Your task to perform on an android device: change the clock style Image 0: 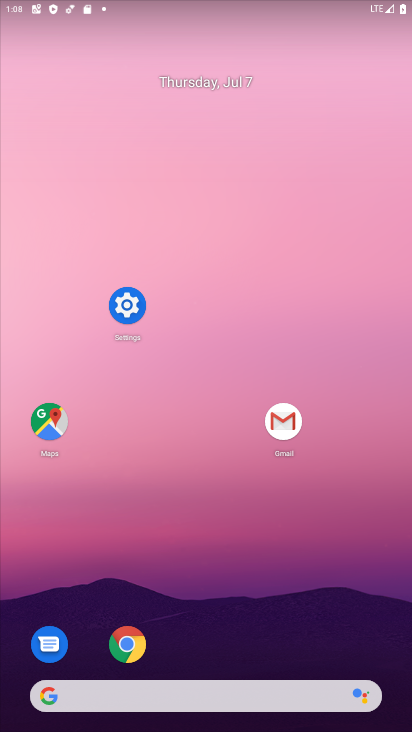
Step 0: drag from (385, 522) to (384, 153)
Your task to perform on an android device: change the clock style Image 1: 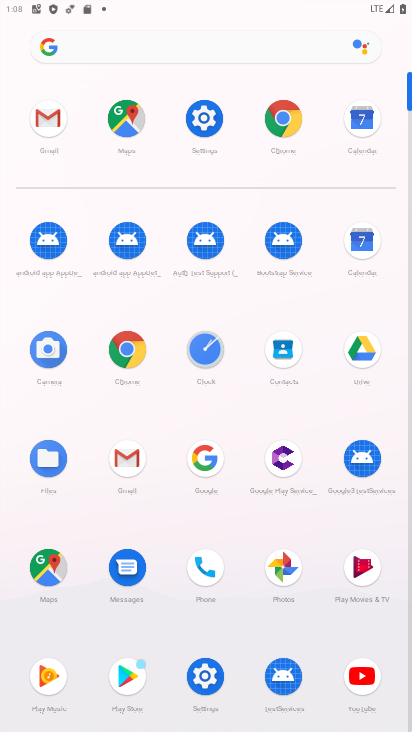
Step 1: click (212, 351)
Your task to perform on an android device: change the clock style Image 2: 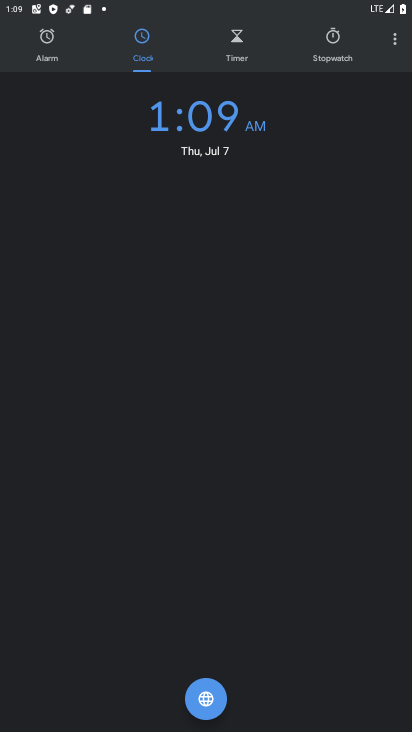
Step 2: click (394, 43)
Your task to perform on an android device: change the clock style Image 3: 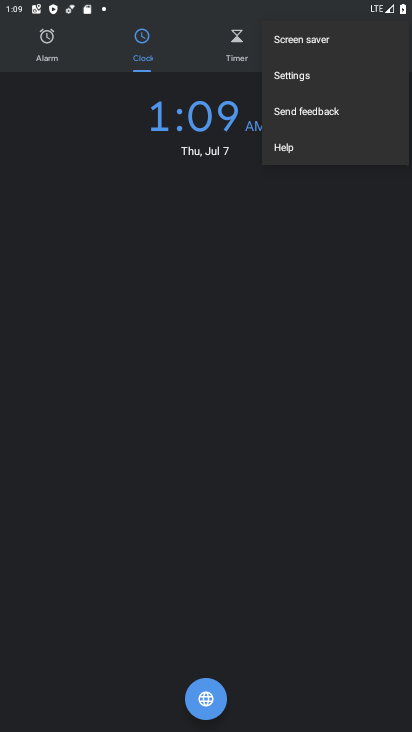
Step 3: click (290, 78)
Your task to perform on an android device: change the clock style Image 4: 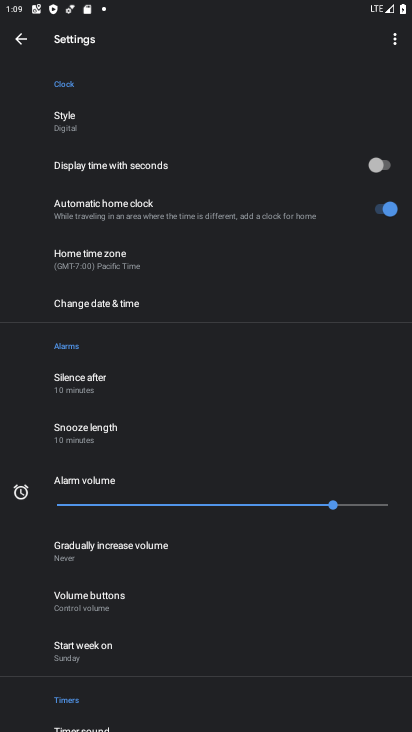
Step 4: drag from (237, 677) to (165, 302)
Your task to perform on an android device: change the clock style Image 5: 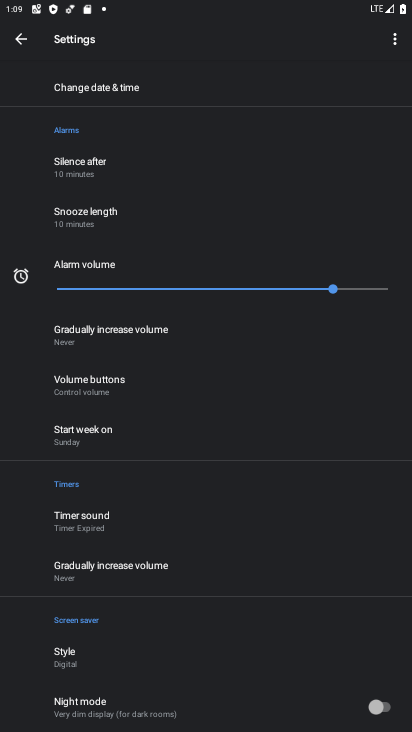
Step 5: drag from (235, 117) to (262, 630)
Your task to perform on an android device: change the clock style Image 6: 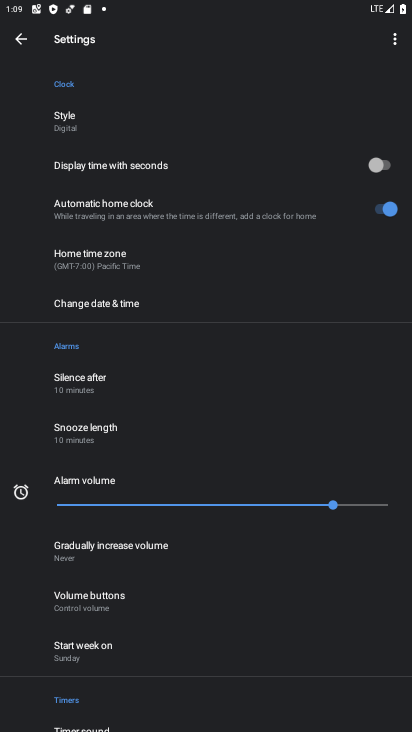
Step 6: click (67, 115)
Your task to perform on an android device: change the clock style Image 7: 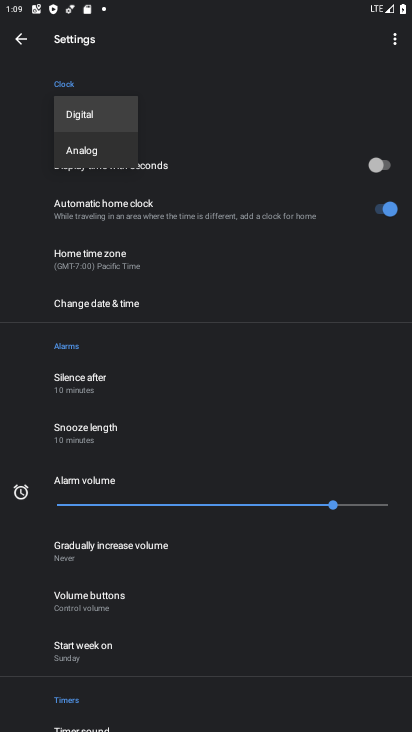
Step 7: click (78, 155)
Your task to perform on an android device: change the clock style Image 8: 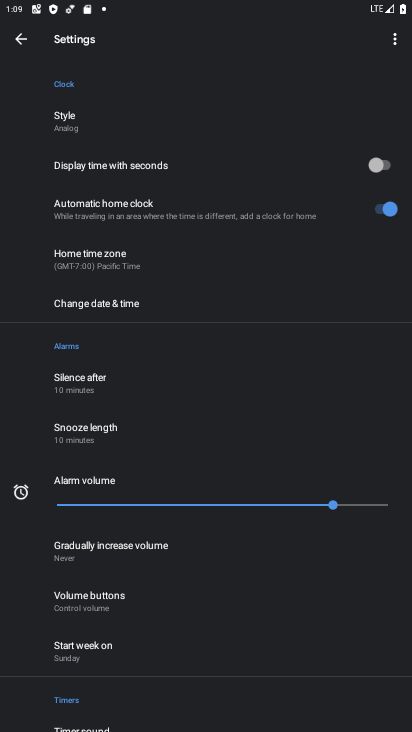
Step 8: task complete